Your task to perform on an android device: Open Maps and search for coffee Image 0: 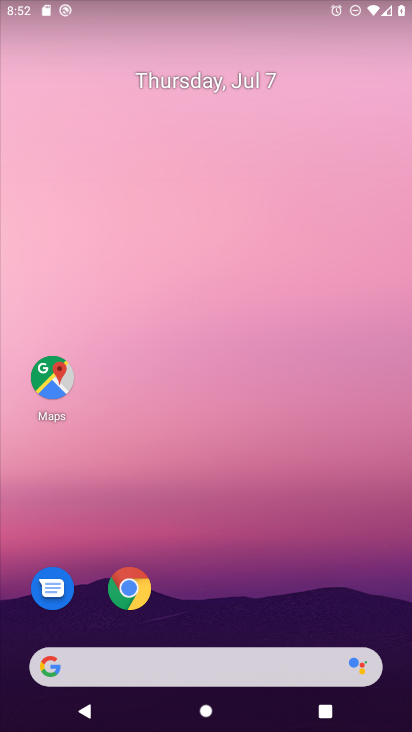
Step 0: drag from (251, 630) to (226, 260)
Your task to perform on an android device: Open Maps and search for coffee Image 1: 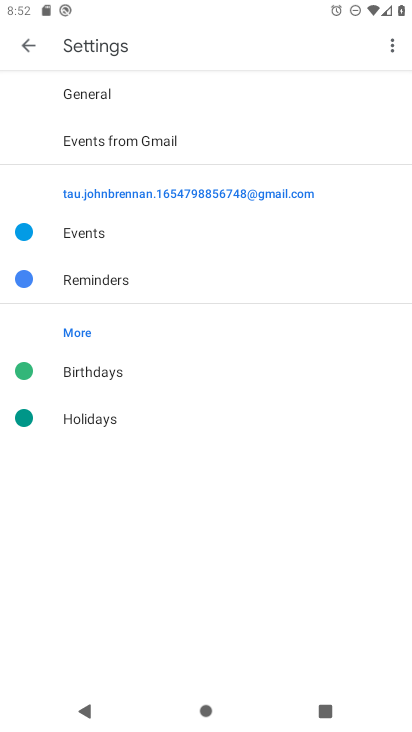
Step 1: press home button
Your task to perform on an android device: Open Maps and search for coffee Image 2: 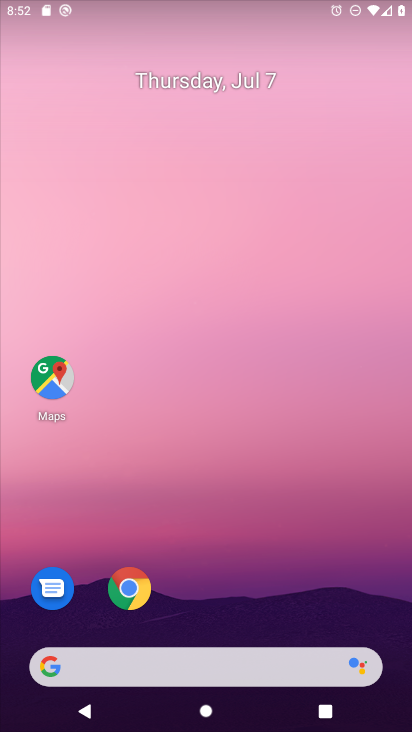
Step 2: drag from (248, 609) to (244, 265)
Your task to perform on an android device: Open Maps and search for coffee Image 3: 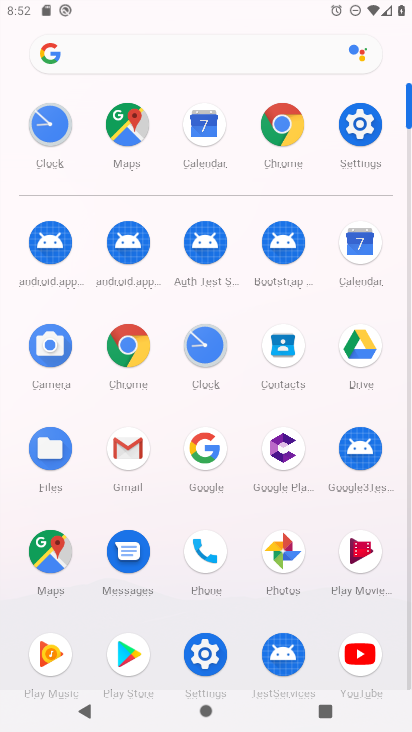
Step 3: click (39, 537)
Your task to perform on an android device: Open Maps and search for coffee Image 4: 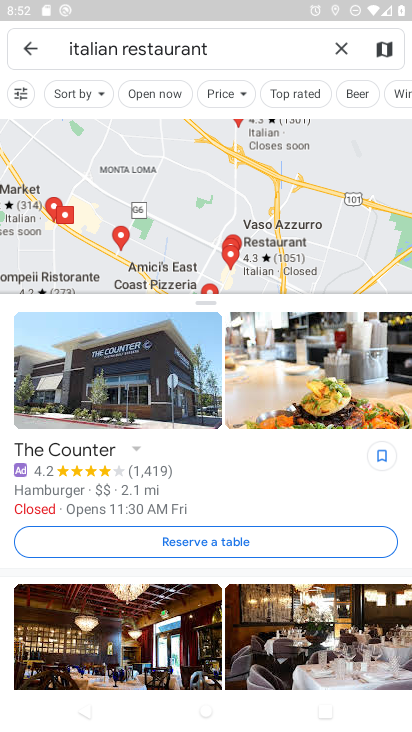
Step 4: click (345, 40)
Your task to perform on an android device: Open Maps and search for coffee Image 5: 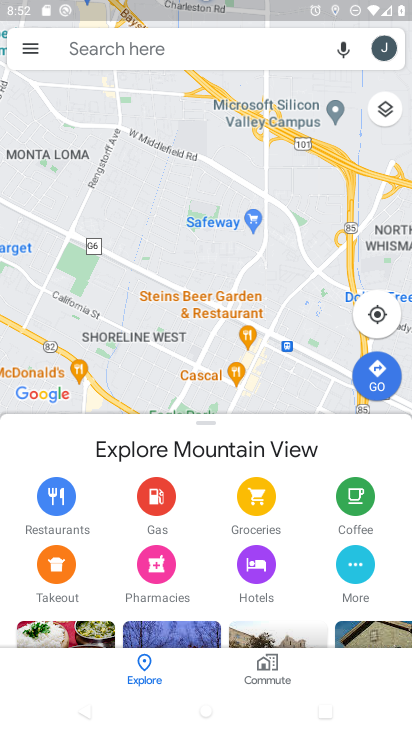
Step 5: click (132, 35)
Your task to perform on an android device: Open Maps and search for coffee Image 6: 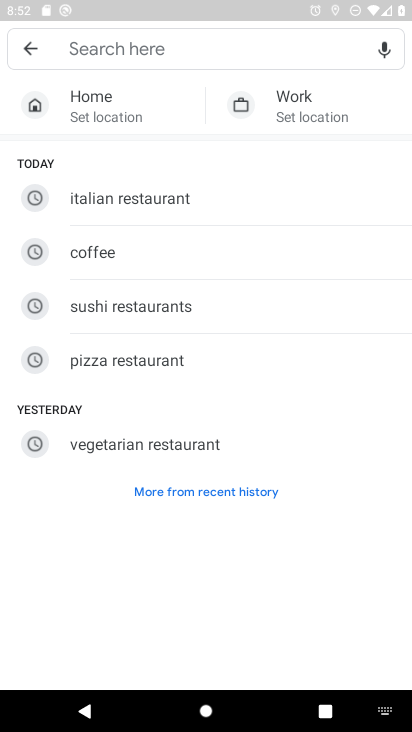
Step 6: type " coffee "
Your task to perform on an android device: Open Maps and search for coffee Image 7: 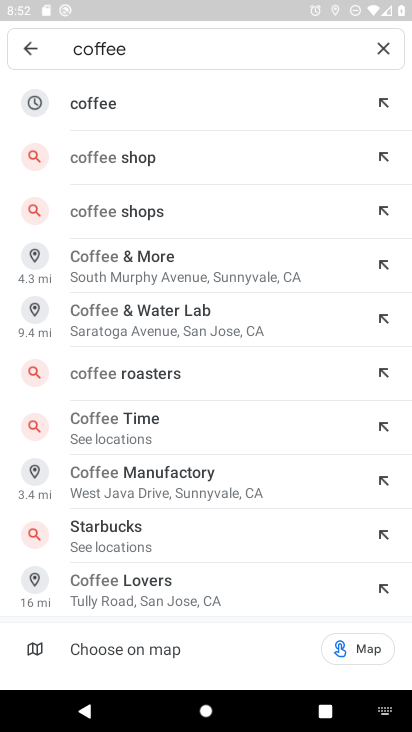
Step 7: click (144, 93)
Your task to perform on an android device: Open Maps and search for coffee Image 8: 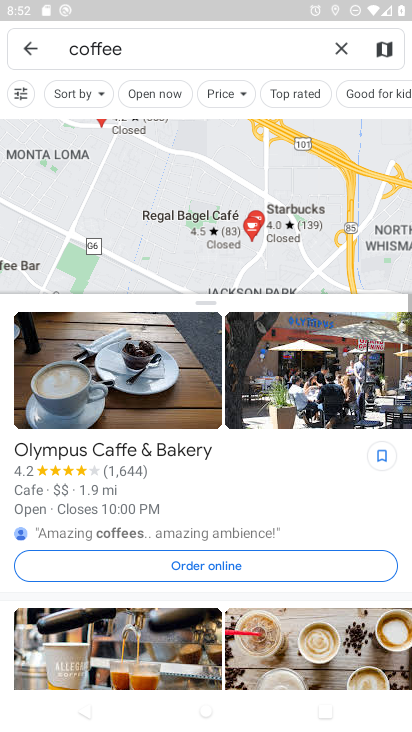
Step 8: task complete